Your task to perform on an android device: Open network settings Image 0: 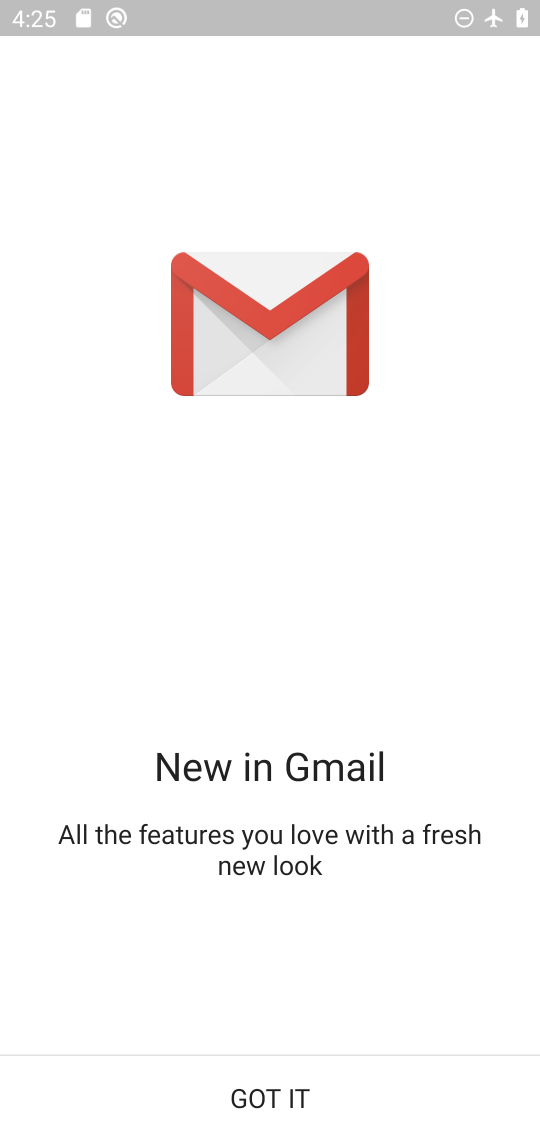
Step 0: press home button
Your task to perform on an android device: Open network settings Image 1: 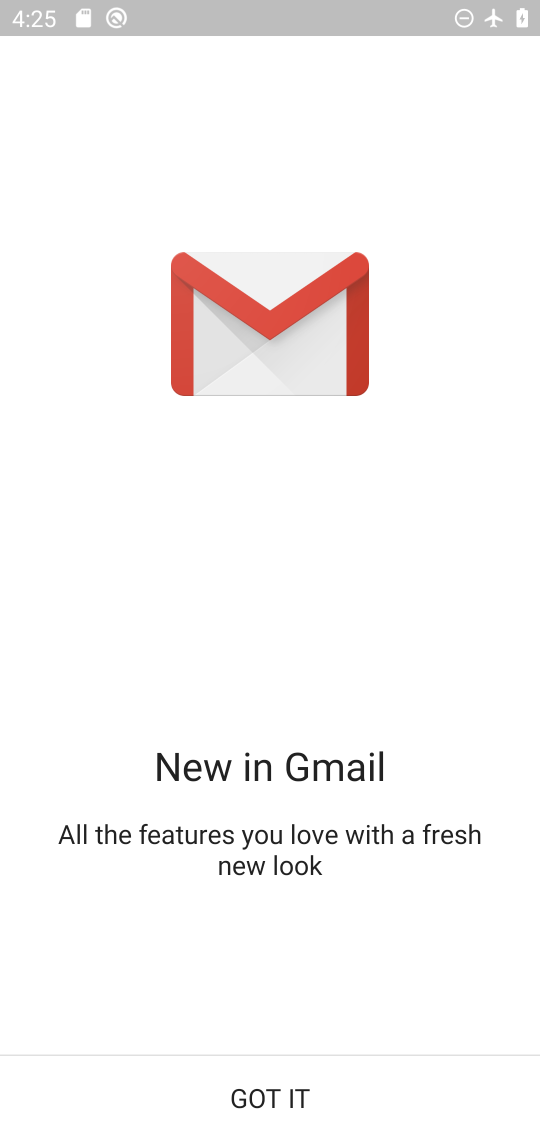
Step 1: press home button
Your task to perform on an android device: Open network settings Image 2: 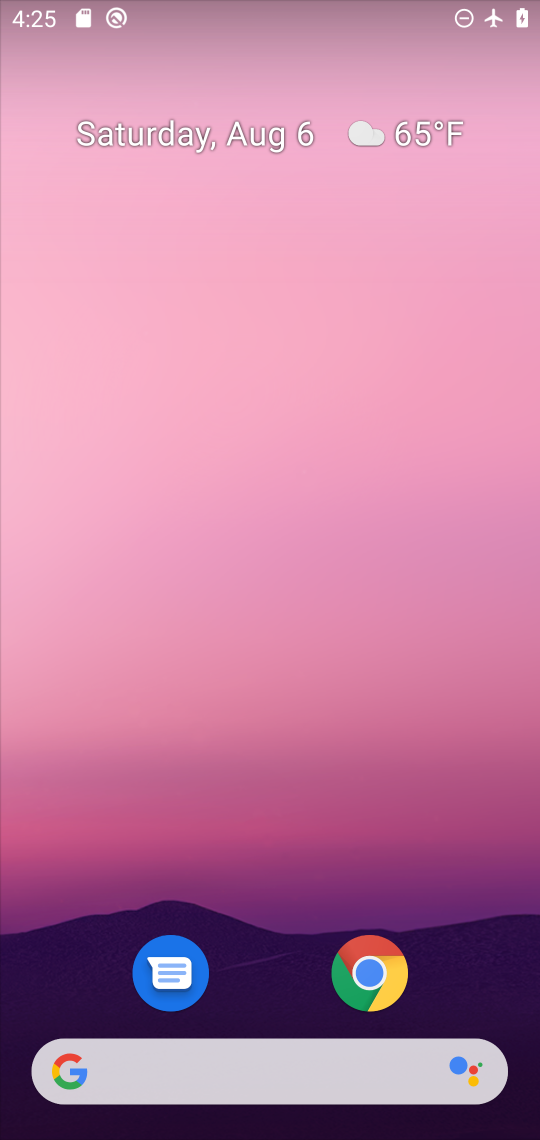
Step 2: drag from (268, 968) to (380, 224)
Your task to perform on an android device: Open network settings Image 3: 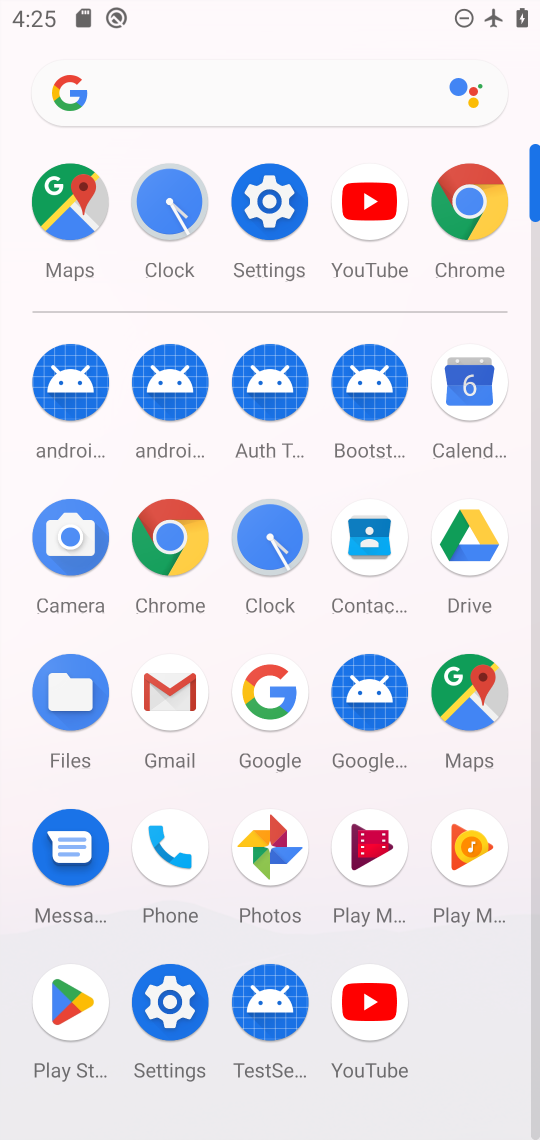
Step 3: click (178, 1009)
Your task to perform on an android device: Open network settings Image 4: 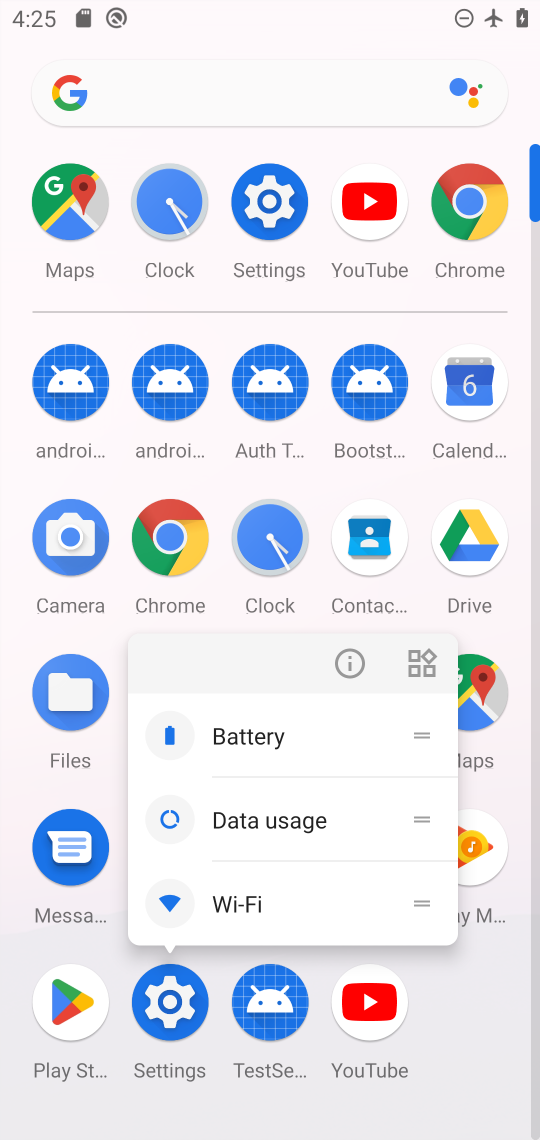
Step 4: click (159, 1007)
Your task to perform on an android device: Open network settings Image 5: 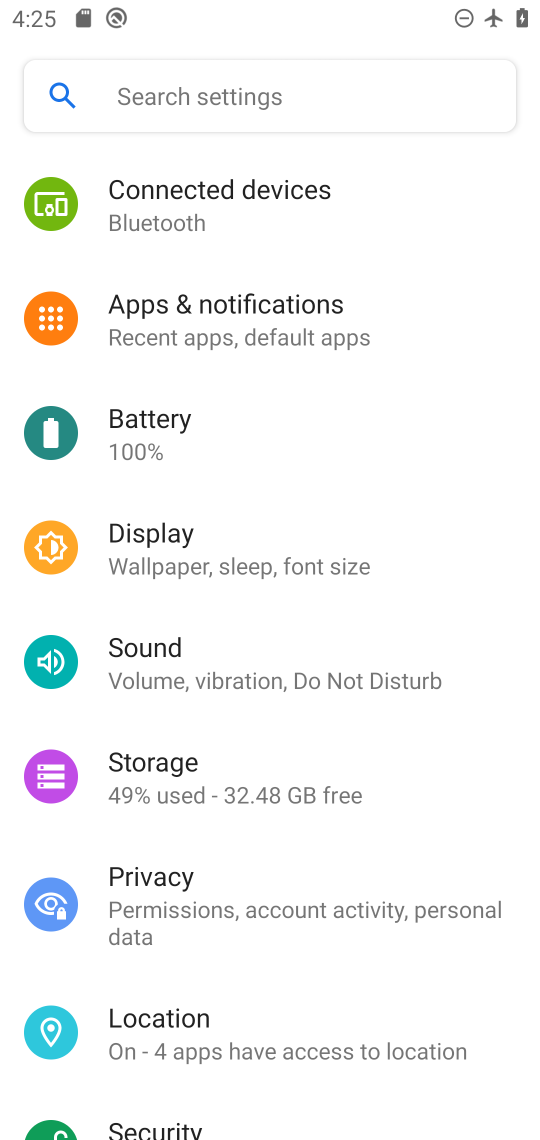
Step 5: drag from (346, 952) to (421, 229)
Your task to perform on an android device: Open network settings Image 6: 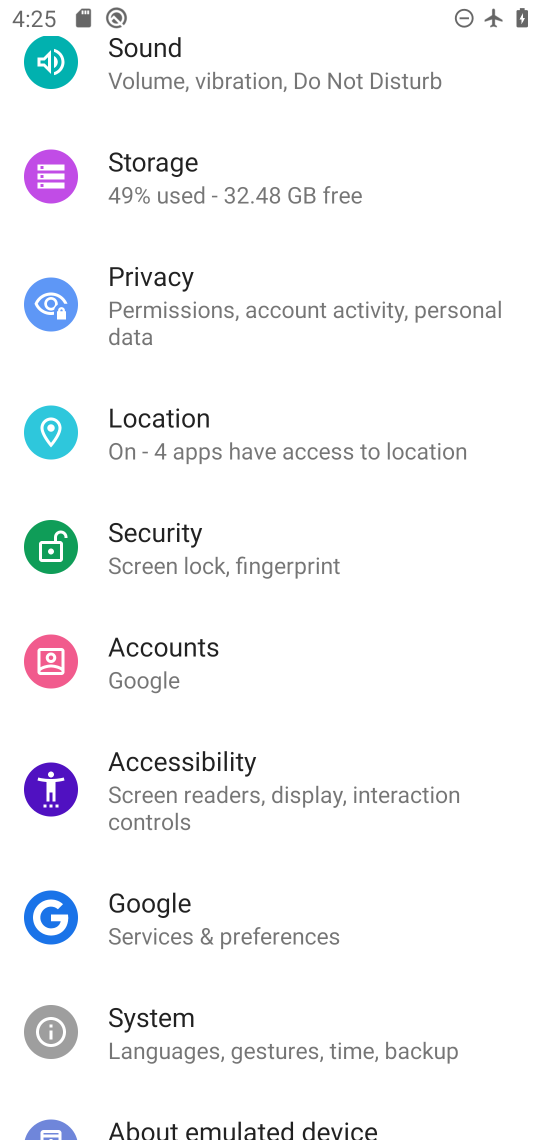
Step 6: drag from (419, 226) to (383, 1055)
Your task to perform on an android device: Open network settings Image 7: 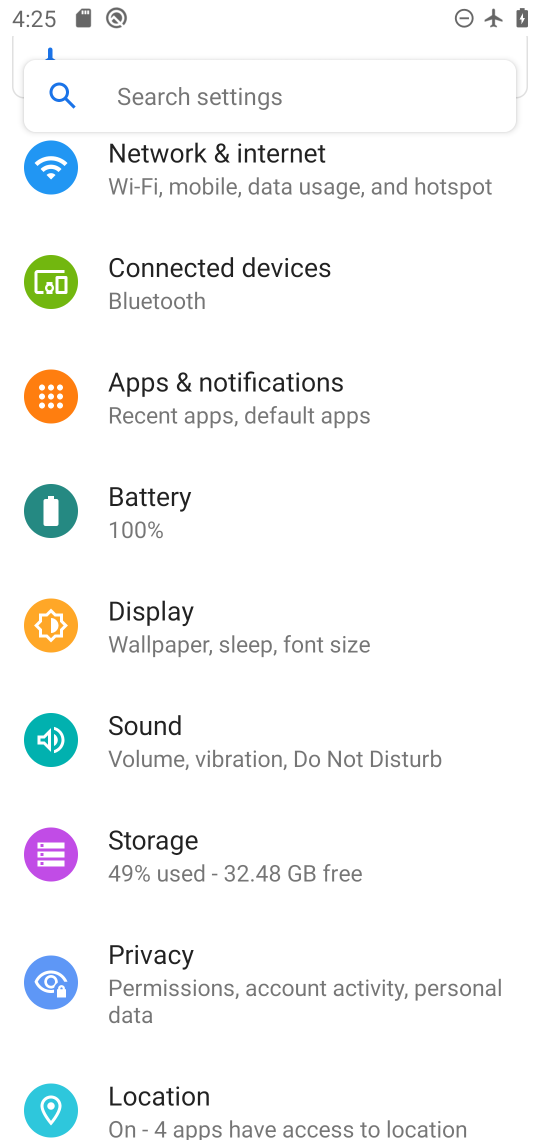
Step 7: click (249, 176)
Your task to perform on an android device: Open network settings Image 8: 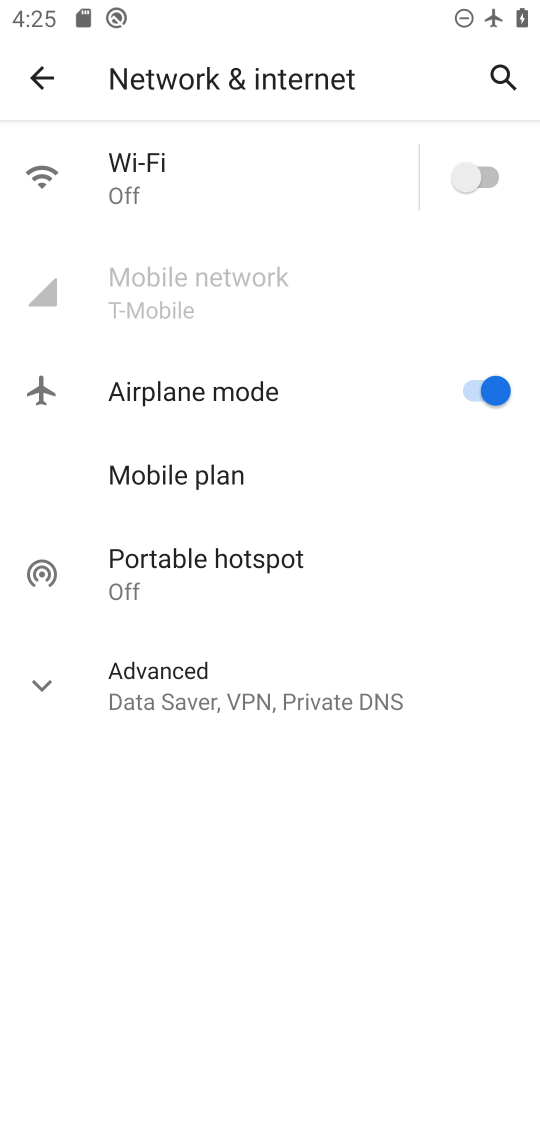
Step 8: task complete